Your task to perform on an android device: turn off wifi Image 0: 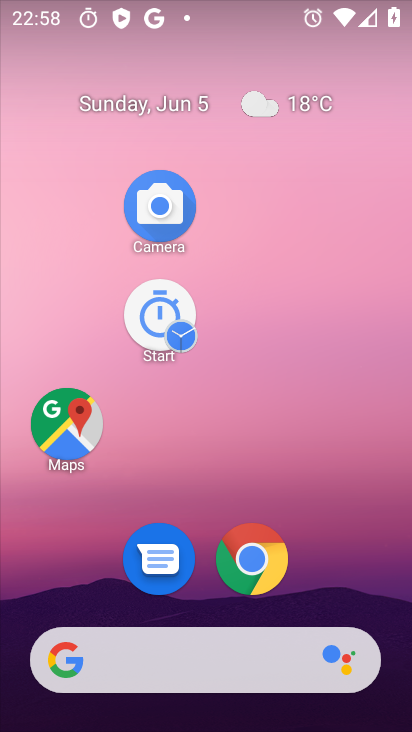
Step 0: press back button
Your task to perform on an android device: turn off wifi Image 1: 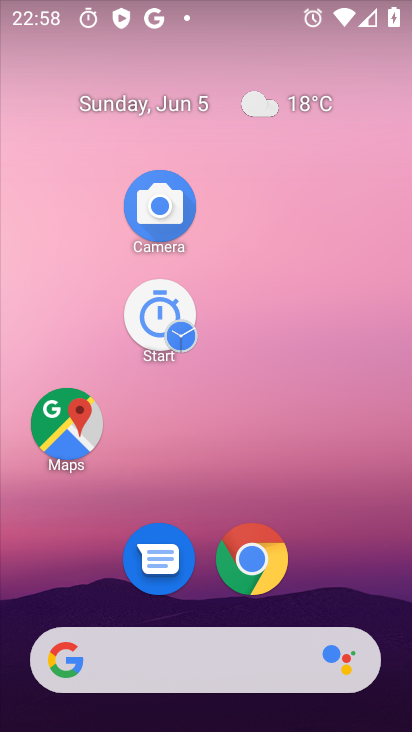
Step 1: drag from (233, 653) to (154, 165)
Your task to perform on an android device: turn off wifi Image 2: 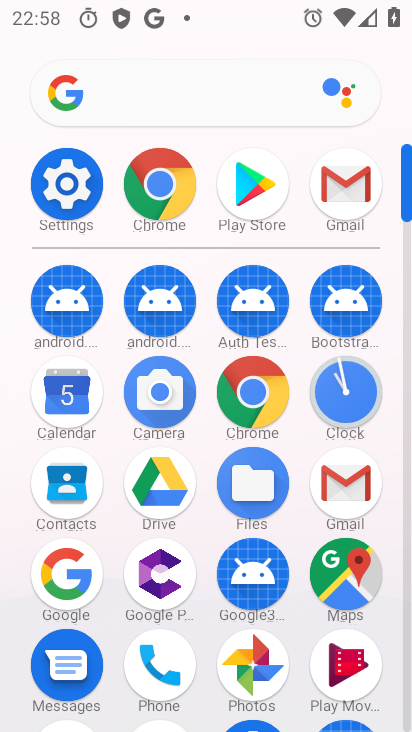
Step 2: click (50, 180)
Your task to perform on an android device: turn off wifi Image 3: 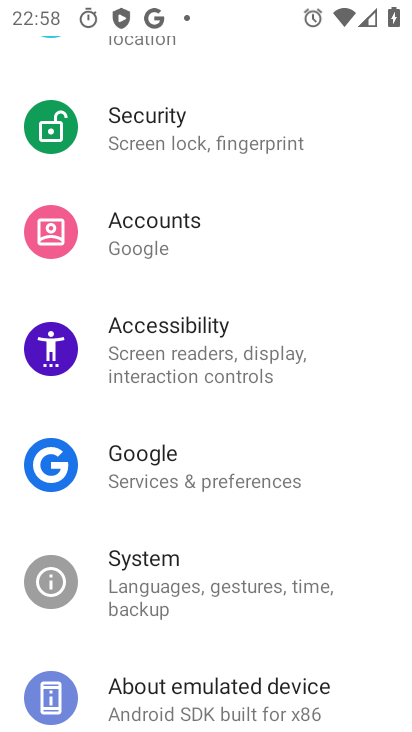
Step 3: drag from (162, 101) to (261, 420)
Your task to perform on an android device: turn off wifi Image 4: 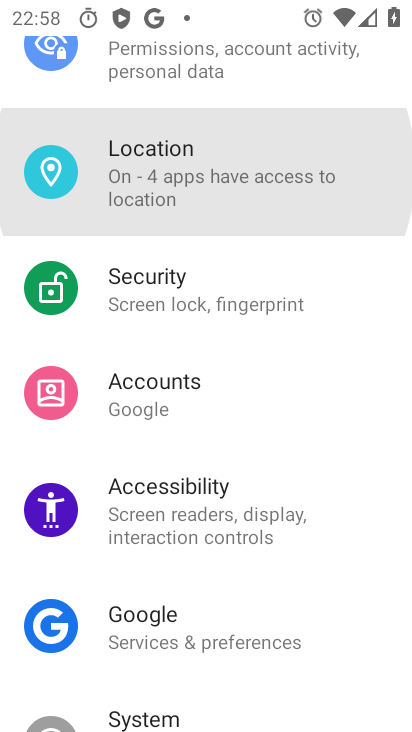
Step 4: drag from (229, 107) to (186, 499)
Your task to perform on an android device: turn off wifi Image 5: 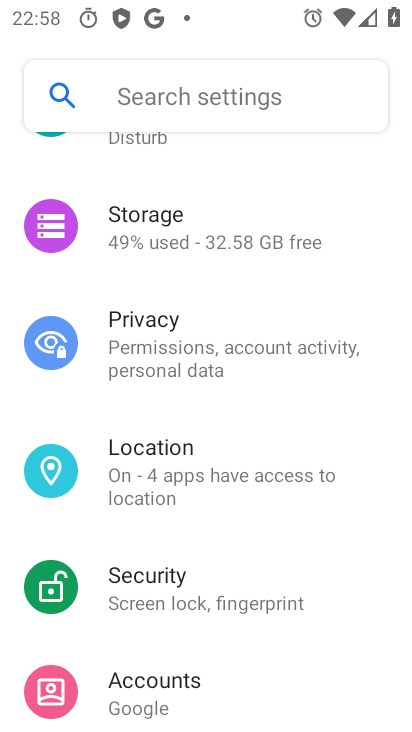
Step 5: drag from (168, 173) to (216, 466)
Your task to perform on an android device: turn off wifi Image 6: 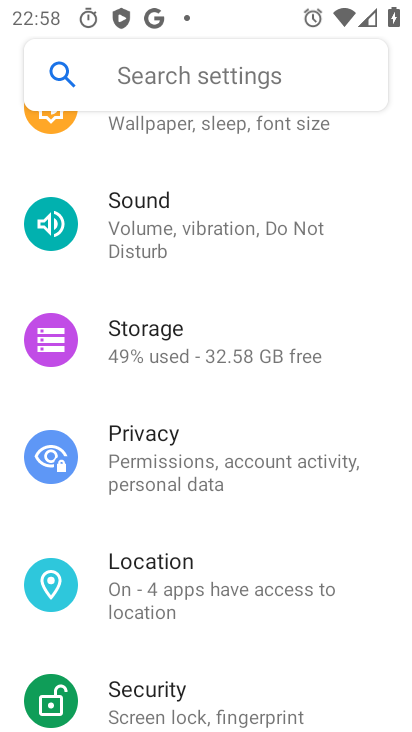
Step 6: drag from (214, 159) to (228, 488)
Your task to perform on an android device: turn off wifi Image 7: 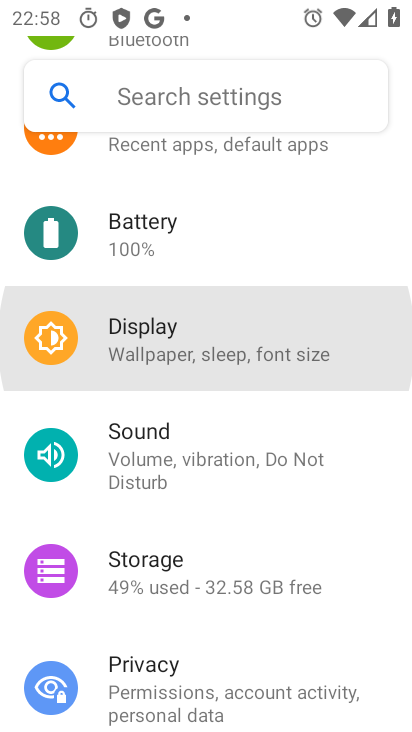
Step 7: drag from (171, 200) to (218, 516)
Your task to perform on an android device: turn off wifi Image 8: 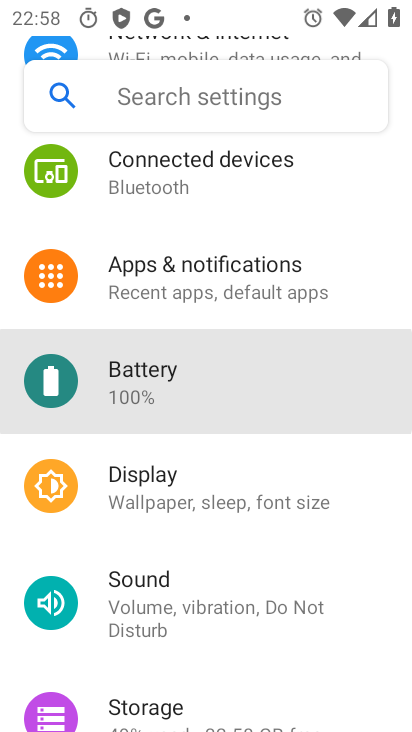
Step 8: drag from (229, 192) to (268, 500)
Your task to perform on an android device: turn off wifi Image 9: 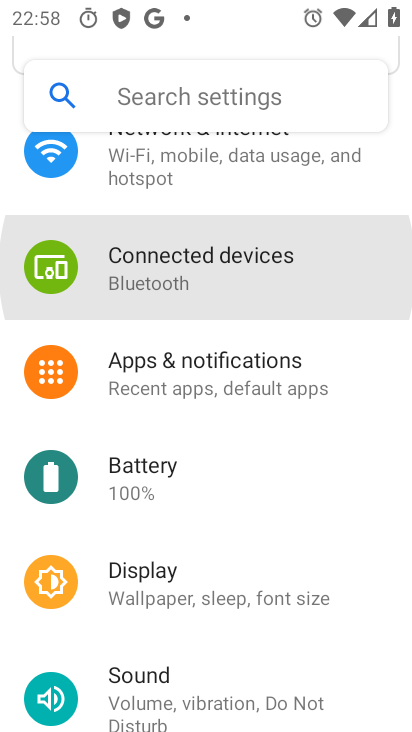
Step 9: drag from (197, 191) to (253, 476)
Your task to perform on an android device: turn off wifi Image 10: 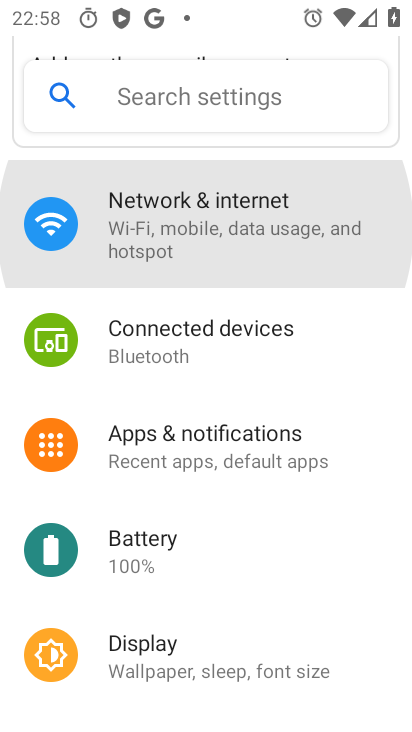
Step 10: drag from (203, 184) to (278, 545)
Your task to perform on an android device: turn off wifi Image 11: 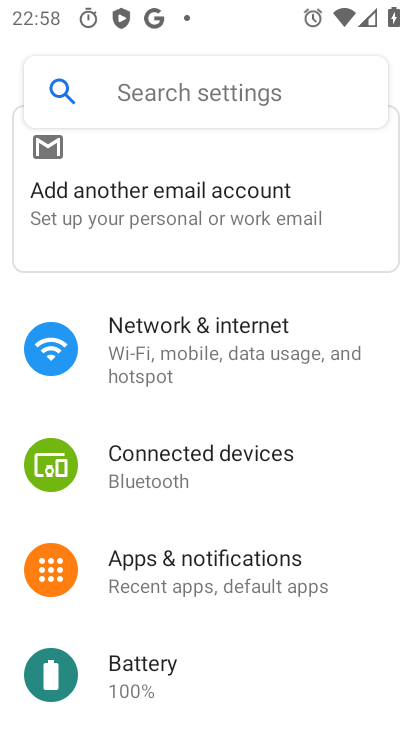
Step 11: click (178, 332)
Your task to perform on an android device: turn off wifi Image 12: 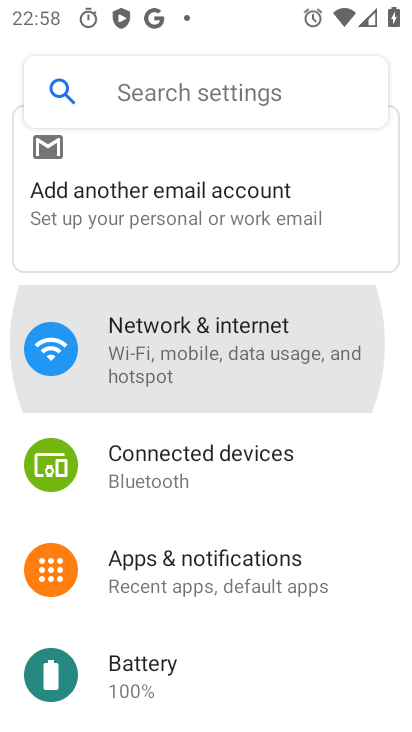
Step 12: click (181, 340)
Your task to perform on an android device: turn off wifi Image 13: 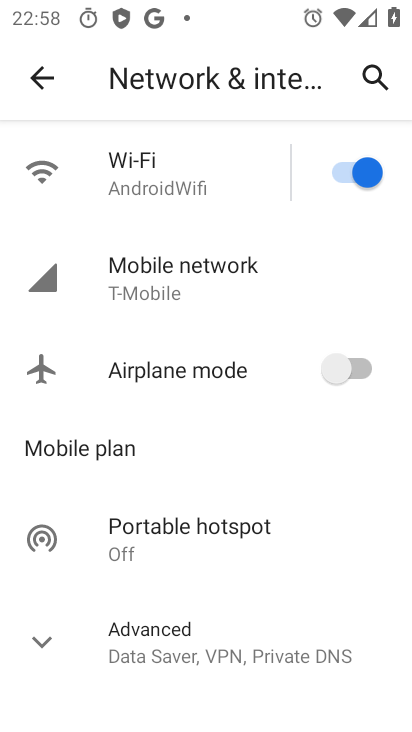
Step 13: click (370, 183)
Your task to perform on an android device: turn off wifi Image 14: 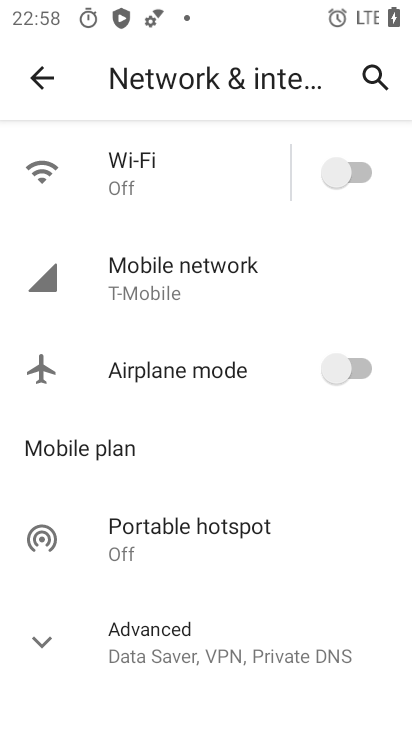
Step 14: task complete